Your task to perform on an android device: turn on the 24-hour format for clock Image 0: 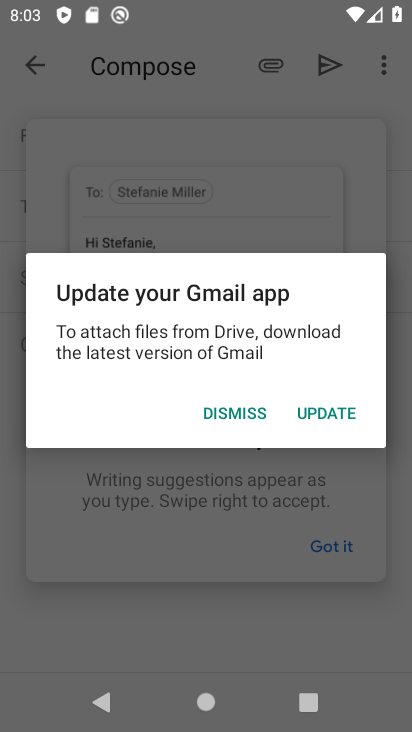
Step 0: press back button
Your task to perform on an android device: turn on the 24-hour format for clock Image 1: 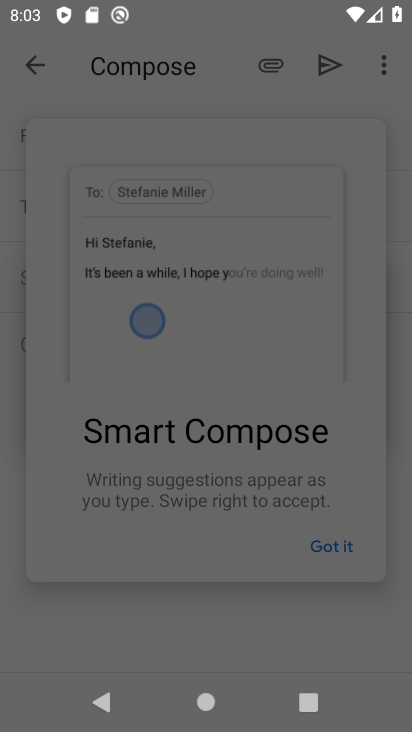
Step 1: press back button
Your task to perform on an android device: turn on the 24-hour format for clock Image 2: 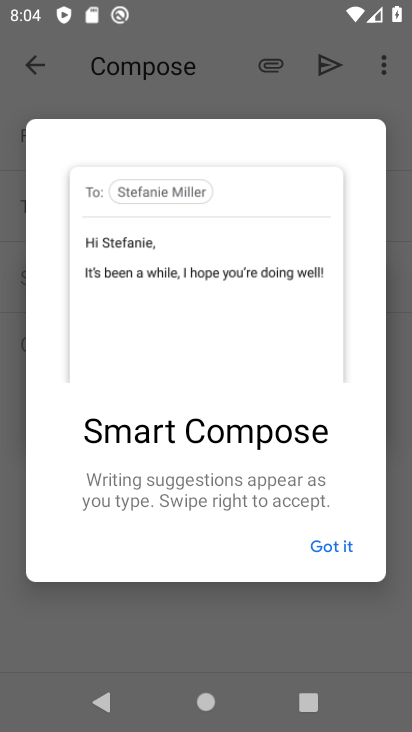
Step 2: press home button
Your task to perform on an android device: turn on the 24-hour format for clock Image 3: 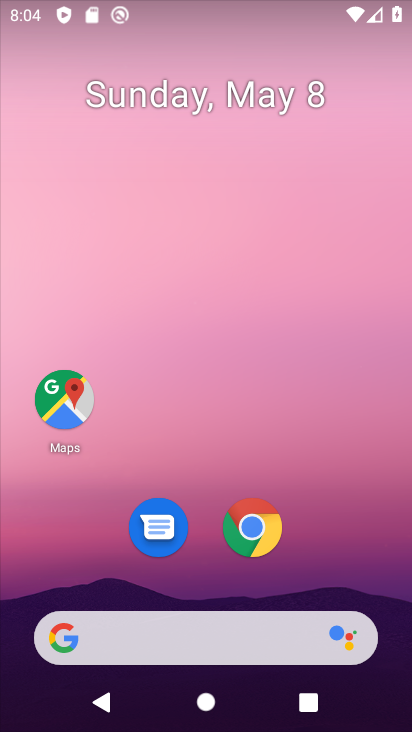
Step 3: drag from (353, 558) to (270, 16)
Your task to perform on an android device: turn on the 24-hour format for clock Image 4: 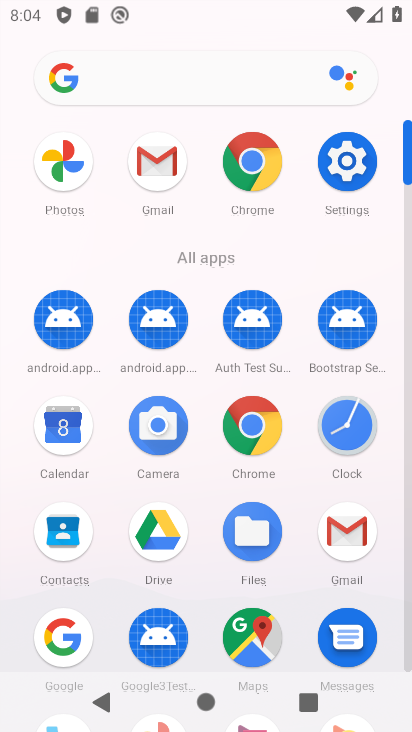
Step 4: drag from (13, 604) to (5, 317)
Your task to perform on an android device: turn on the 24-hour format for clock Image 5: 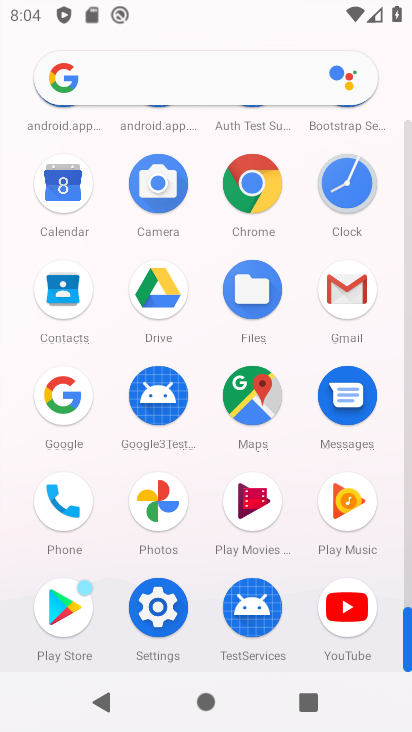
Step 5: click (348, 181)
Your task to perform on an android device: turn on the 24-hour format for clock Image 6: 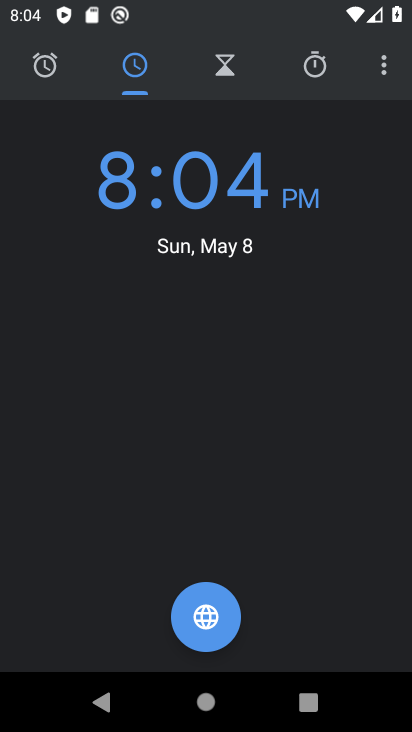
Step 6: drag from (379, 72) to (338, 128)
Your task to perform on an android device: turn on the 24-hour format for clock Image 7: 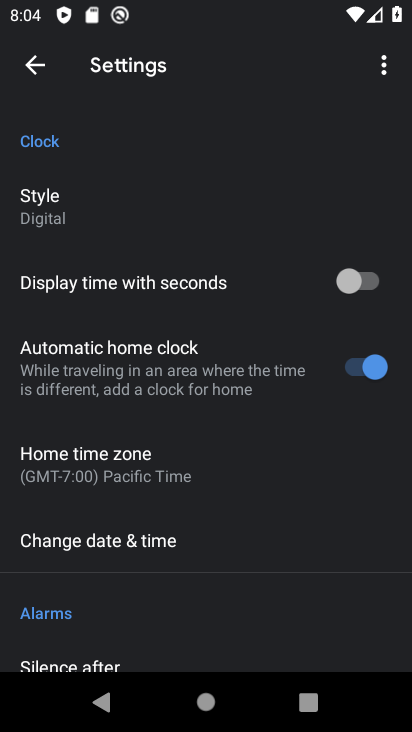
Step 7: drag from (241, 466) to (223, 134)
Your task to perform on an android device: turn on the 24-hour format for clock Image 8: 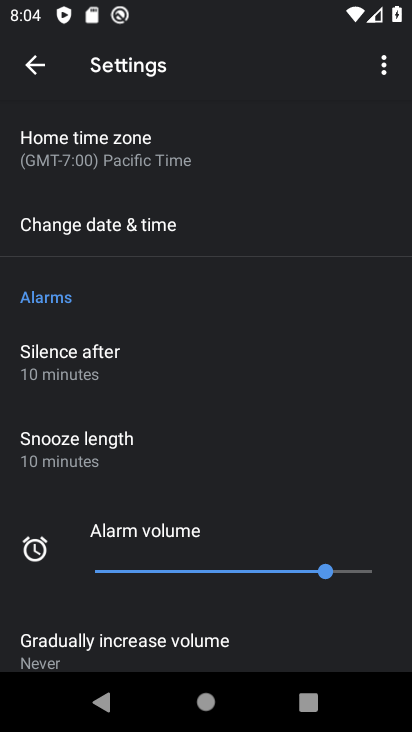
Step 8: drag from (170, 464) to (162, 114)
Your task to perform on an android device: turn on the 24-hour format for clock Image 9: 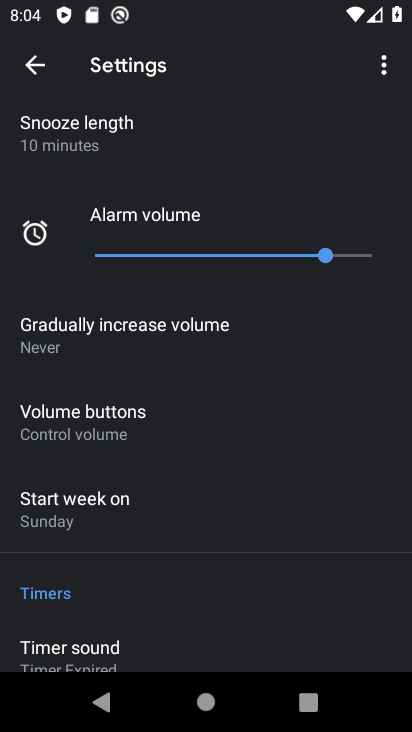
Step 9: drag from (196, 184) to (255, 622)
Your task to perform on an android device: turn on the 24-hour format for clock Image 10: 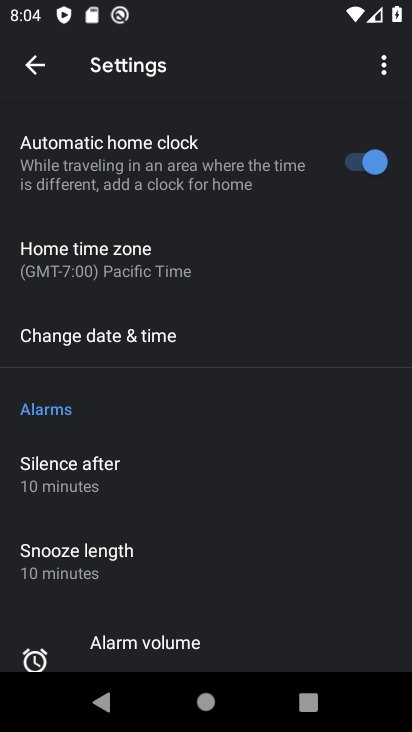
Step 10: drag from (206, 222) to (227, 626)
Your task to perform on an android device: turn on the 24-hour format for clock Image 11: 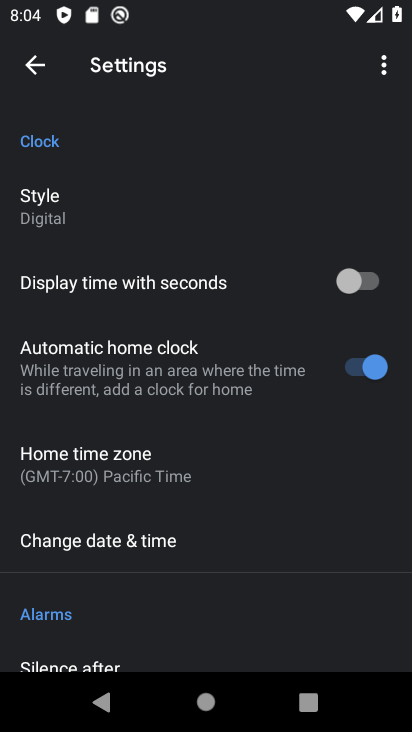
Step 11: click (151, 540)
Your task to perform on an android device: turn on the 24-hour format for clock Image 12: 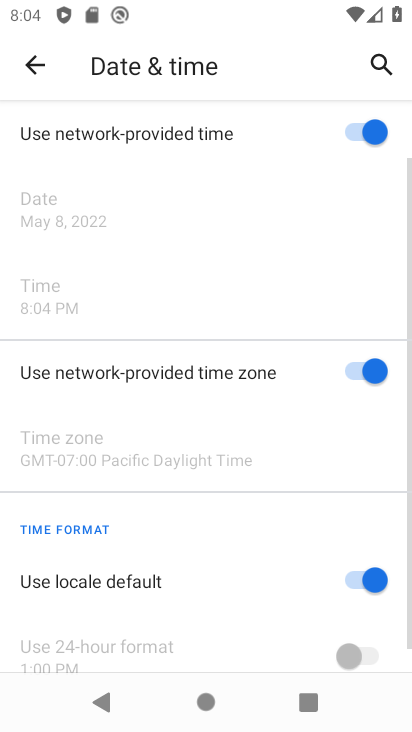
Step 12: drag from (230, 571) to (245, 157)
Your task to perform on an android device: turn on the 24-hour format for clock Image 13: 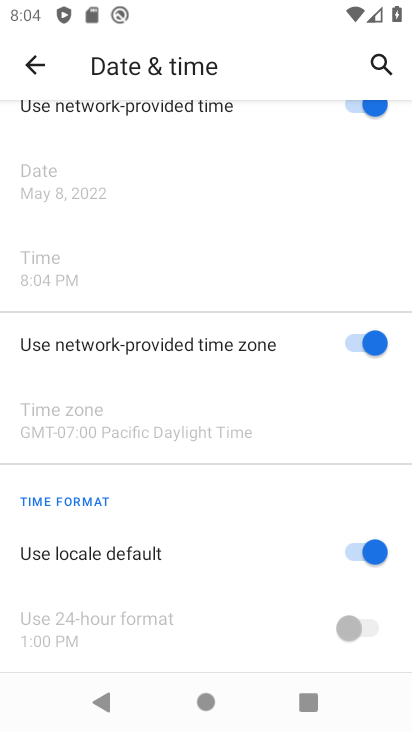
Step 13: click (368, 536)
Your task to perform on an android device: turn on the 24-hour format for clock Image 14: 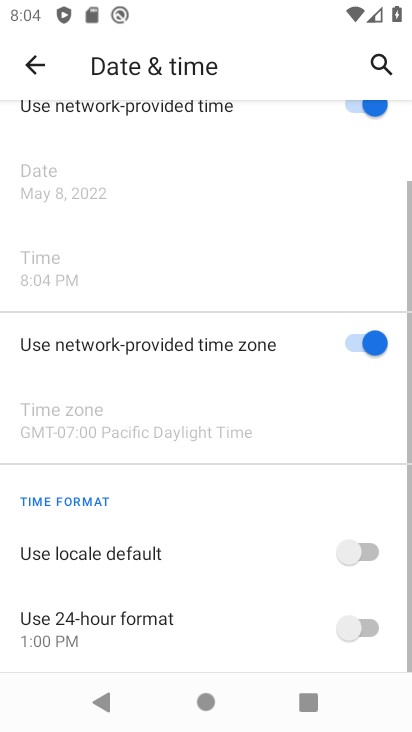
Step 14: click (349, 631)
Your task to perform on an android device: turn on the 24-hour format for clock Image 15: 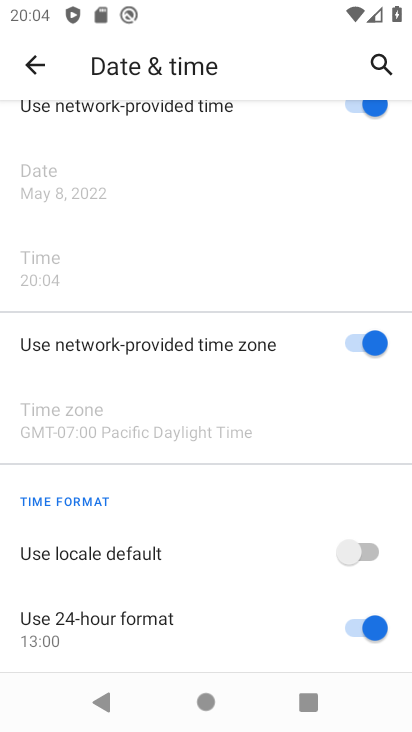
Step 15: task complete